Your task to perform on an android device: Open accessibility settings Image 0: 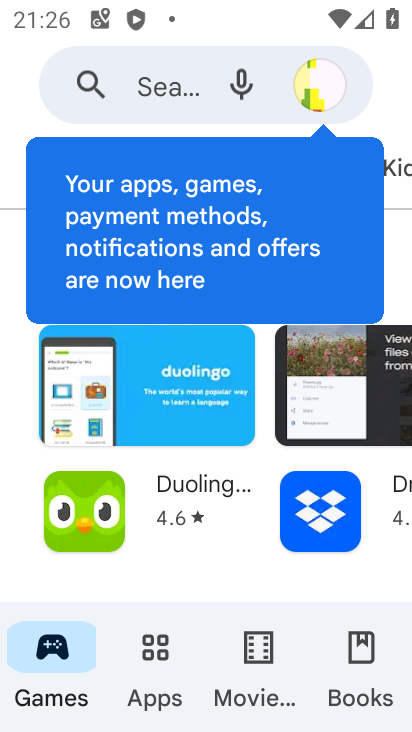
Step 0: press back button
Your task to perform on an android device: Open accessibility settings Image 1: 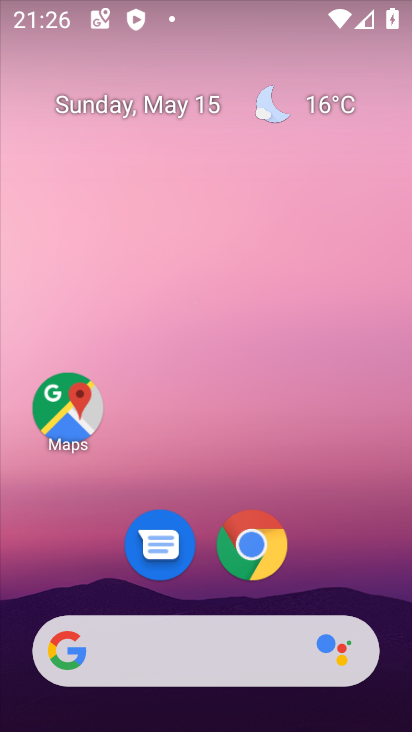
Step 1: drag from (325, 571) to (235, 171)
Your task to perform on an android device: Open accessibility settings Image 2: 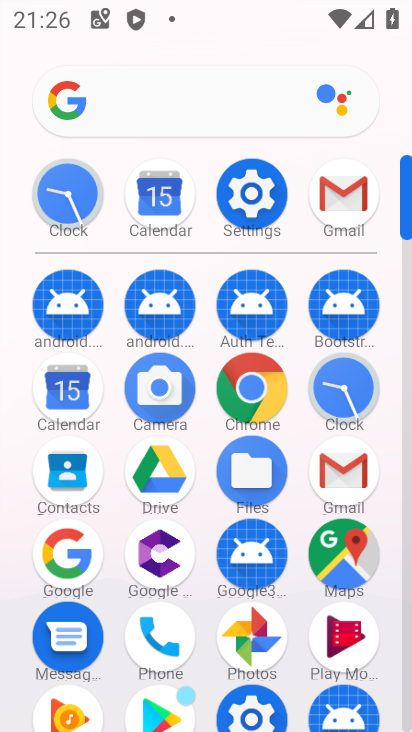
Step 2: click (252, 195)
Your task to perform on an android device: Open accessibility settings Image 3: 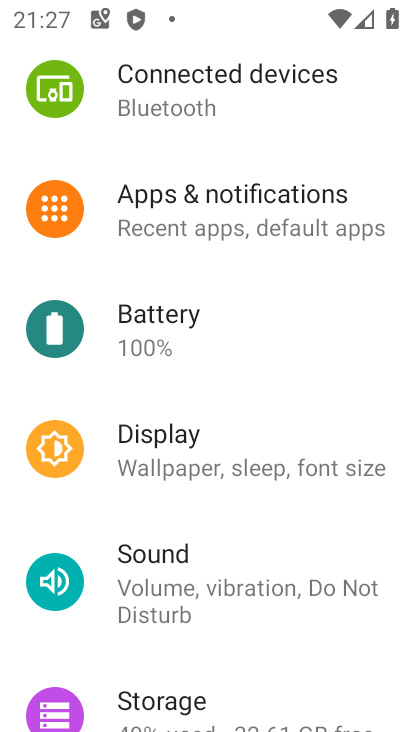
Step 3: drag from (209, 524) to (214, 430)
Your task to perform on an android device: Open accessibility settings Image 4: 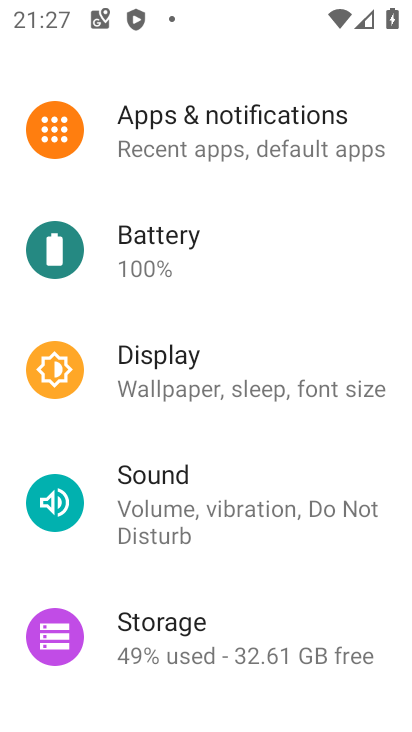
Step 4: drag from (182, 564) to (201, 460)
Your task to perform on an android device: Open accessibility settings Image 5: 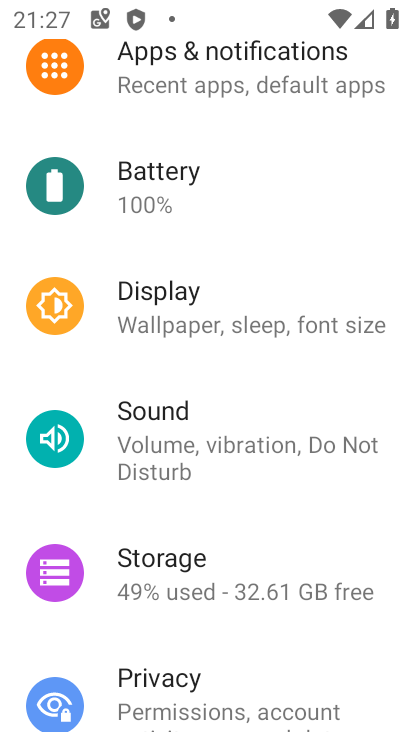
Step 5: drag from (157, 638) to (181, 526)
Your task to perform on an android device: Open accessibility settings Image 6: 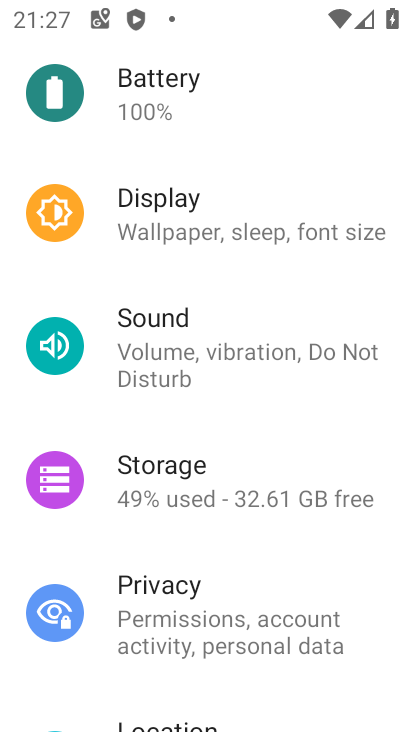
Step 6: drag from (150, 559) to (199, 466)
Your task to perform on an android device: Open accessibility settings Image 7: 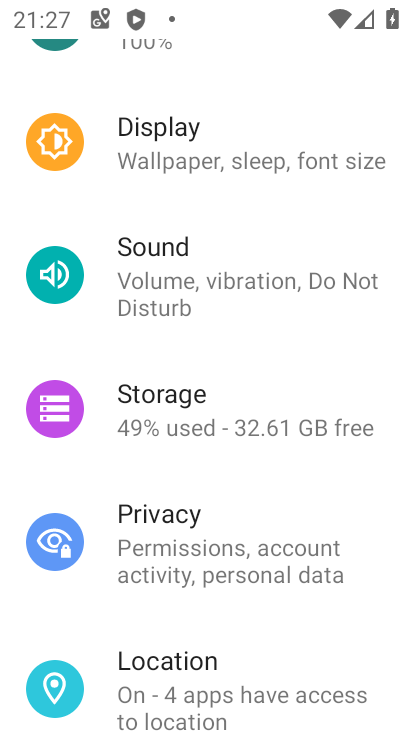
Step 7: drag from (162, 612) to (201, 446)
Your task to perform on an android device: Open accessibility settings Image 8: 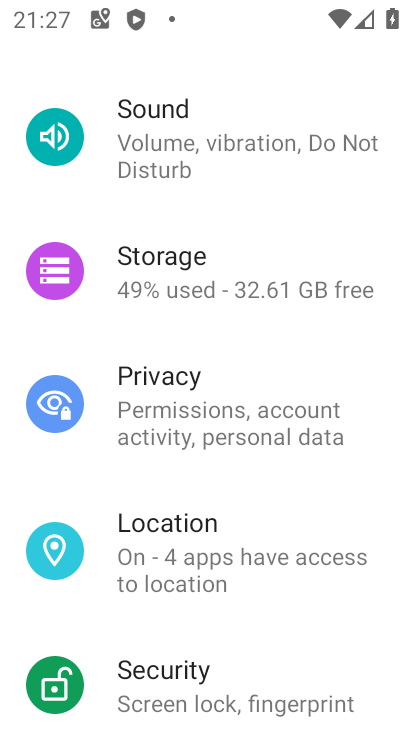
Step 8: drag from (138, 609) to (191, 469)
Your task to perform on an android device: Open accessibility settings Image 9: 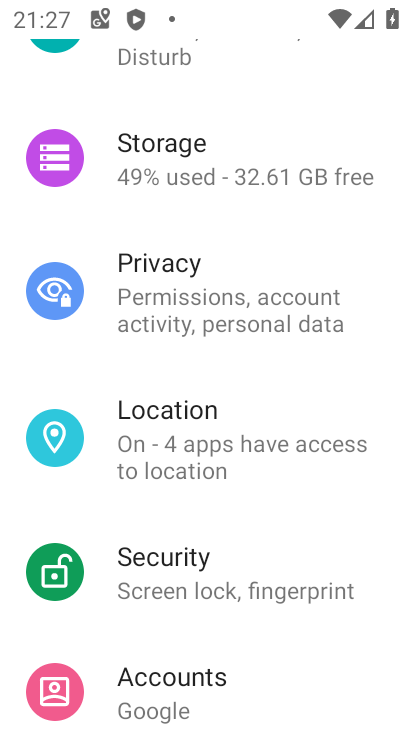
Step 9: drag from (159, 515) to (222, 399)
Your task to perform on an android device: Open accessibility settings Image 10: 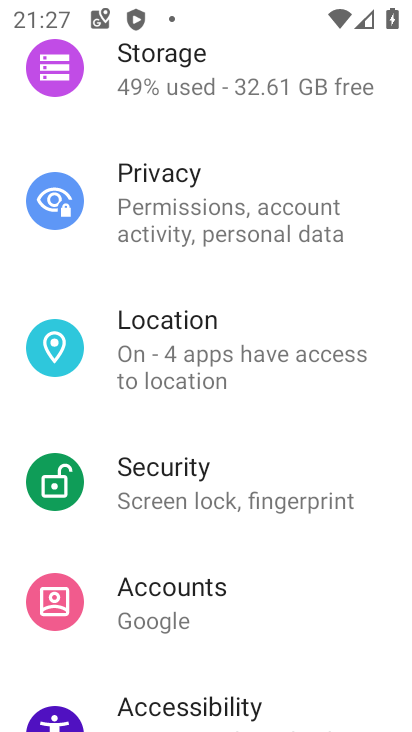
Step 10: drag from (163, 629) to (236, 474)
Your task to perform on an android device: Open accessibility settings Image 11: 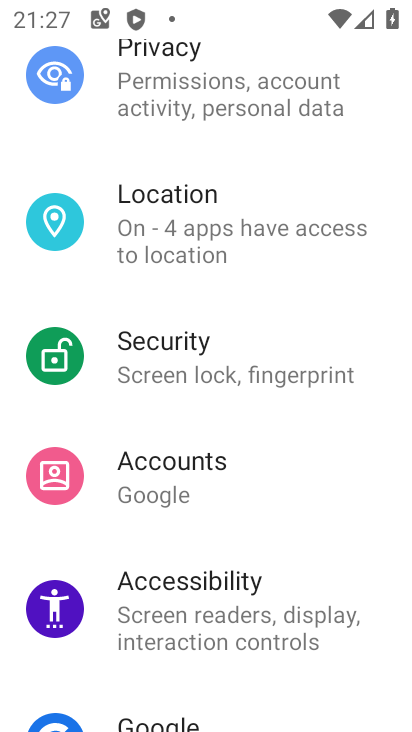
Step 11: click (230, 577)
Your task to perform on an android device: Open accessibility settings Image 12: 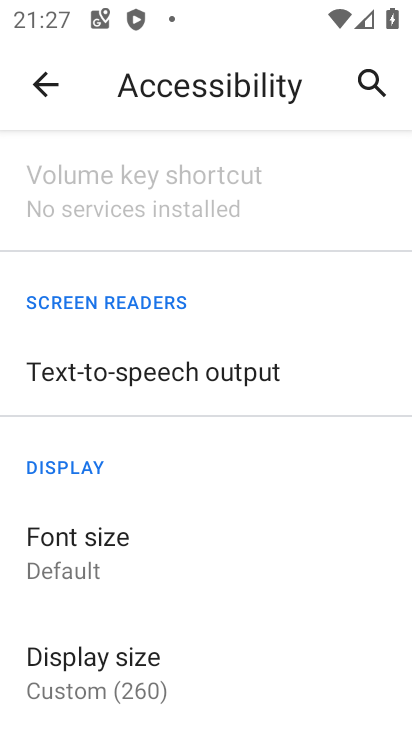
Step 12: task complete